Your task to perform on an android device: check storage Image 0: 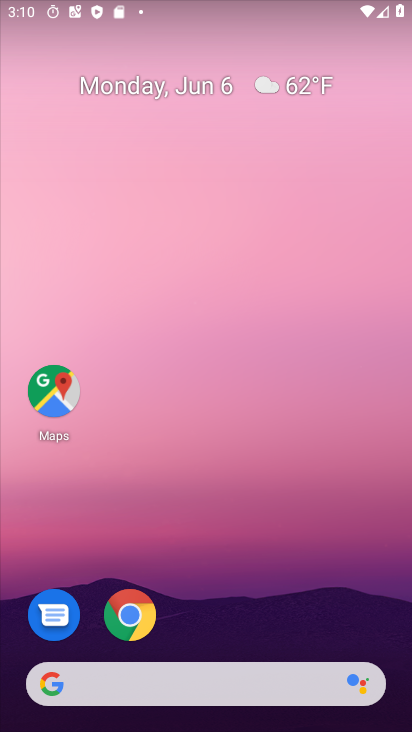
Step 0: drag from (256, 670) to (289, 0)
Your task to perform on an android device: check storage Image 1: 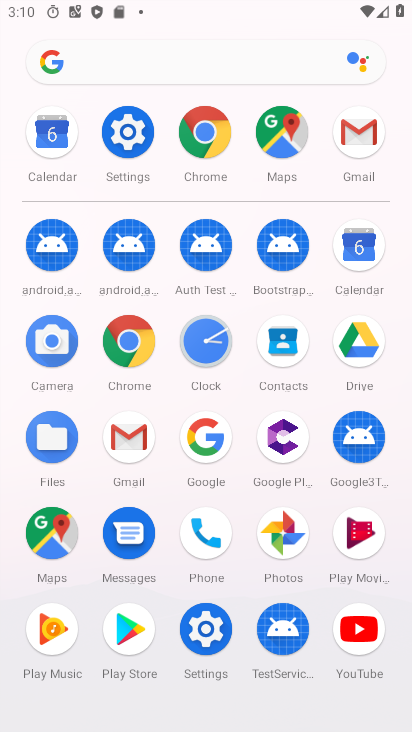
Step 1: click (133, 121)
Your task to perform on an android device: check storage Image 2: 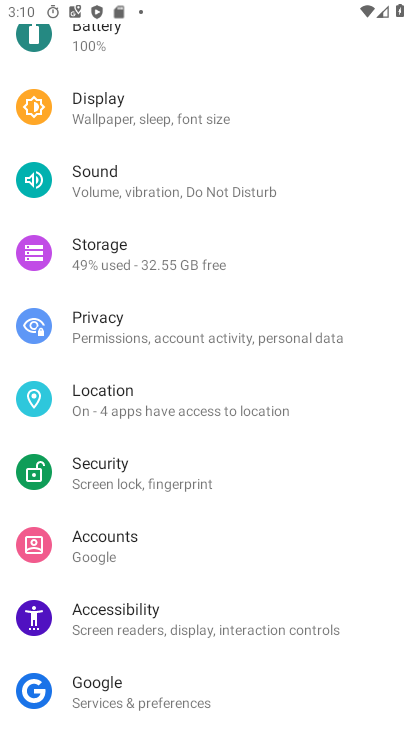
Step 2: click (149, 257)
Your task to perform on an android device: check storage Image 3: 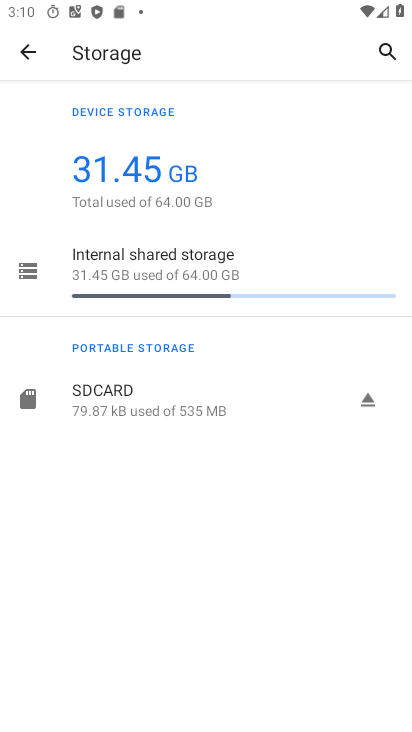
Step 3: task complete